Your task to perform on an android device: find snoozed emails in the gmail app Image 0: 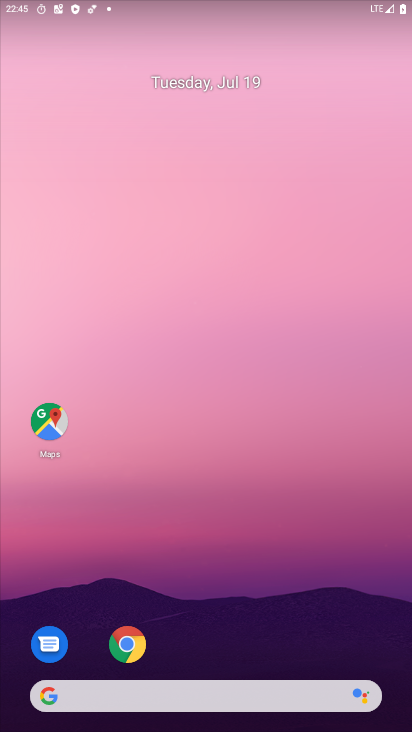
Step 0: drag from (240, 589) to (155, 167)
Your task to perform on an android device: find snoozed emails in the gmail app Image 1: 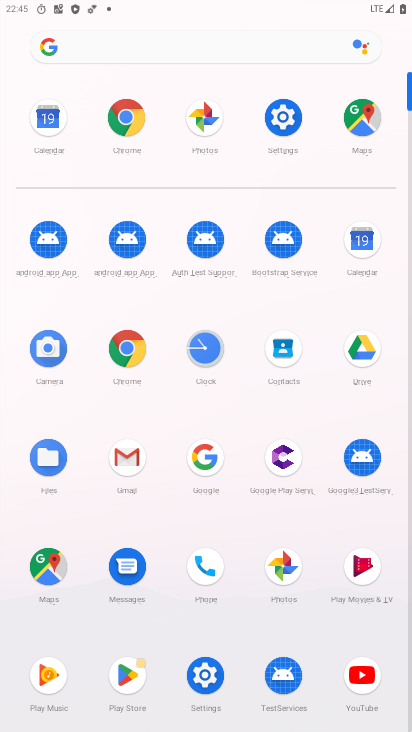
Step 1: click (147, 475)
Your task to perform on an android device: find snoozed emails in the gmail app Image 2: 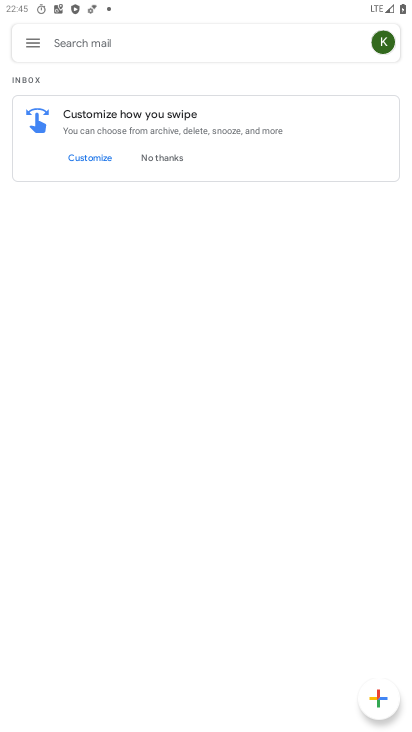
Step 2: click (38, 53)
Your task to perform on an android device: find snoozed emails in the gmail app Image 3: 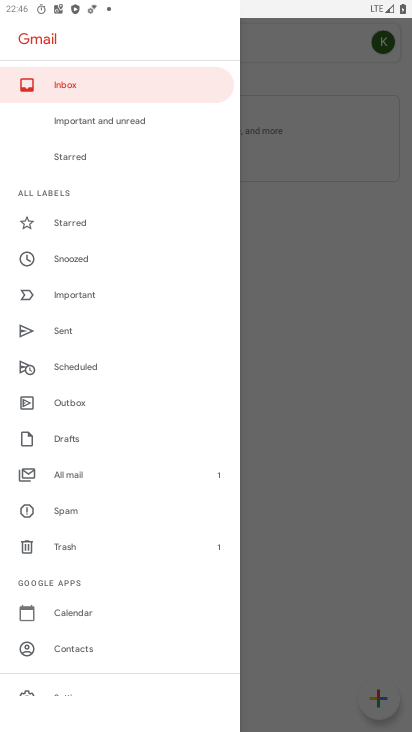
Step 3: click (78, 260)
Your task to perform on an android device: find snoozed emails in the gmail app Image 4: 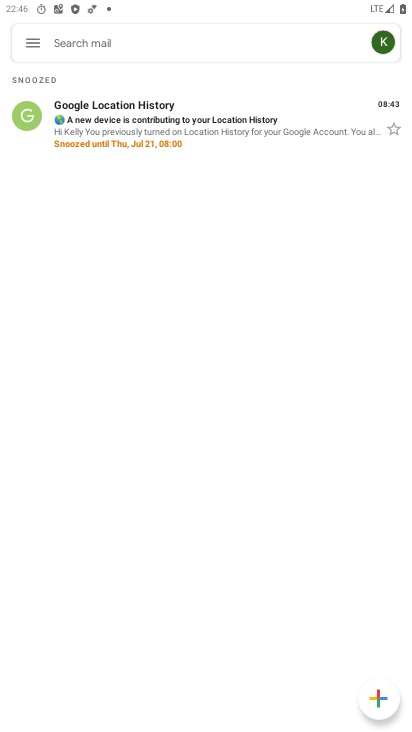
Step 4: task complete